Your task to perform on an android device: Open Google Maps and go to "Timeline" Image 0: 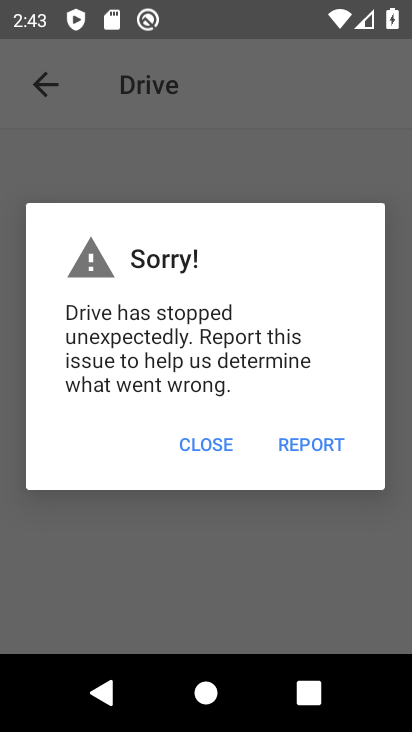
Step 0: press back button
Your task to perform on an android device: Open Google Maps and go to "Timeline" Image 1: 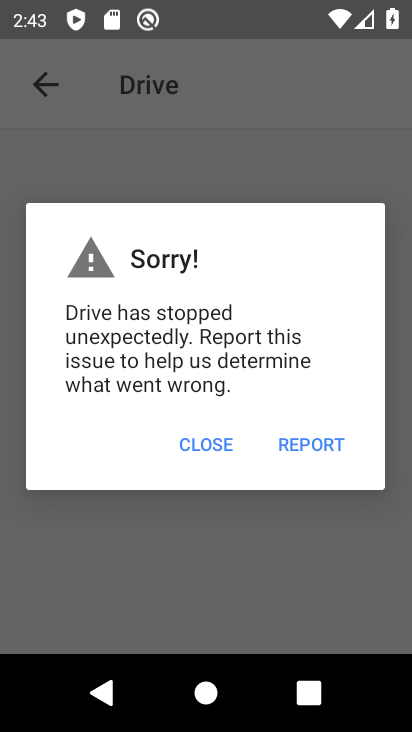
Step 1: press back button
Your task to perform on an android device: Open Google Maps and go to "Timeline" Image 2: 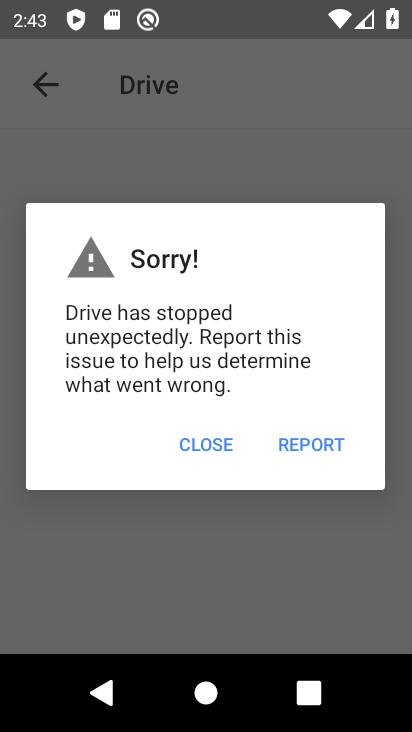
Step 2: press home button
Your task to perform on an android device: Open Google Maps and go to "Timeline" Image 3: 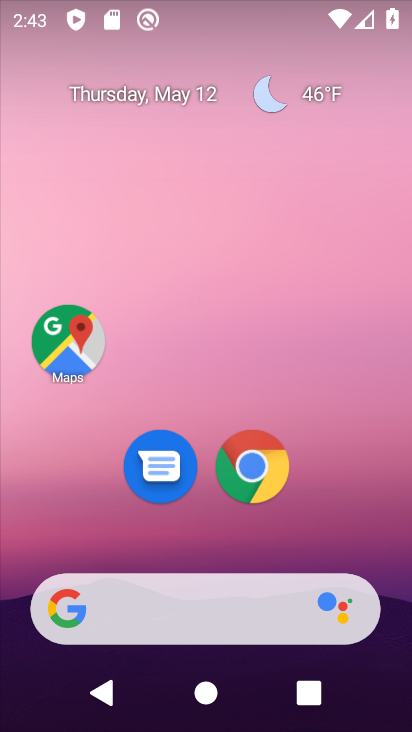
Step 3: drag from (358, 487) to (281, 6)
Your task to perform on an android device: Open Google Maps and go to "Timeline" Image 4: 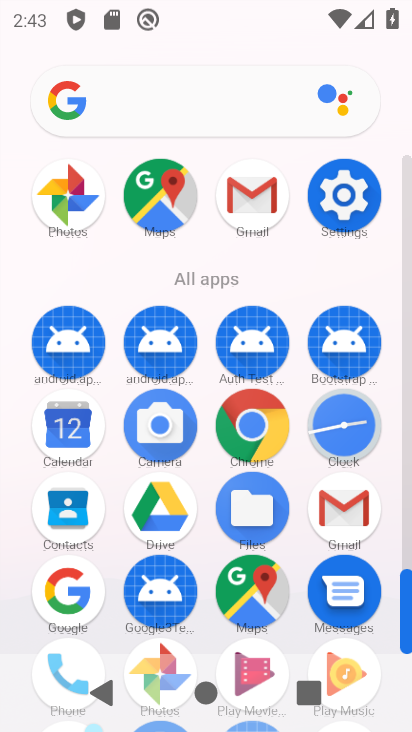
Step 4: click (248, 588)
Your task to perform on an android device: Open Google Maps and go to "Timeline" Image 5: 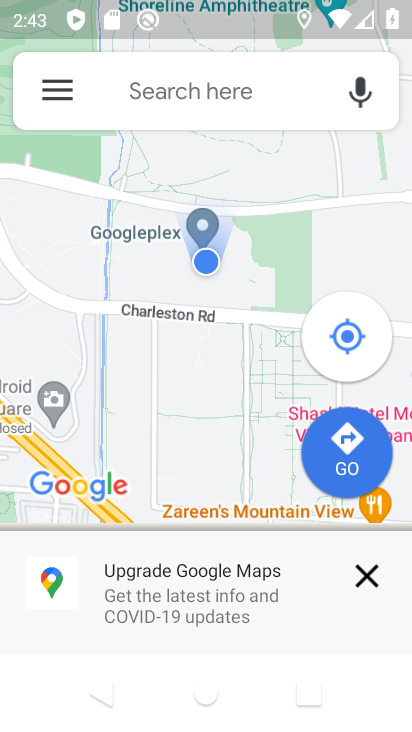
Step 5: click (61, 82)
Your task to perform on an android device: Open Google Maps and go to "Timeline" Image 6: 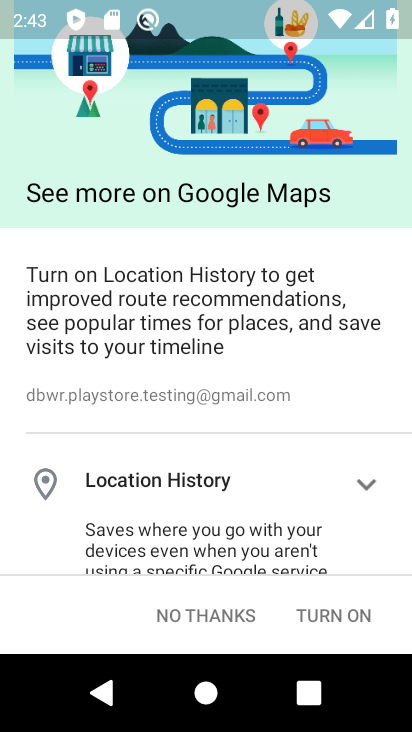
Step 6: click (315, 616)
Your task to perform on an android device: Open Google Maps and go to "Timeline" Image 7: 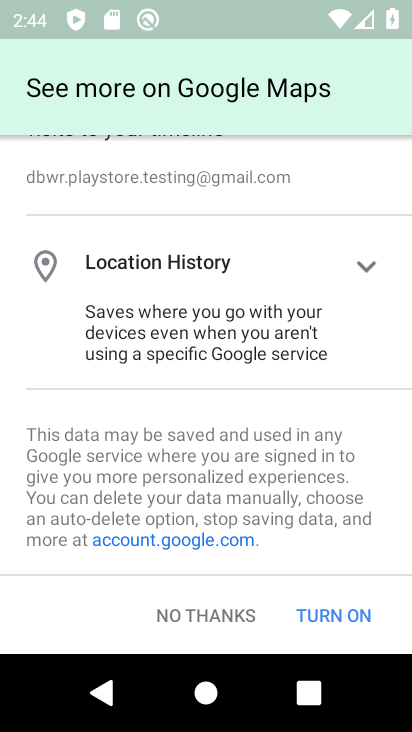
Step 7: click (316, 613)
Your task to perform on an android device: Open Google Maps and go to "Timeline" Image 8: 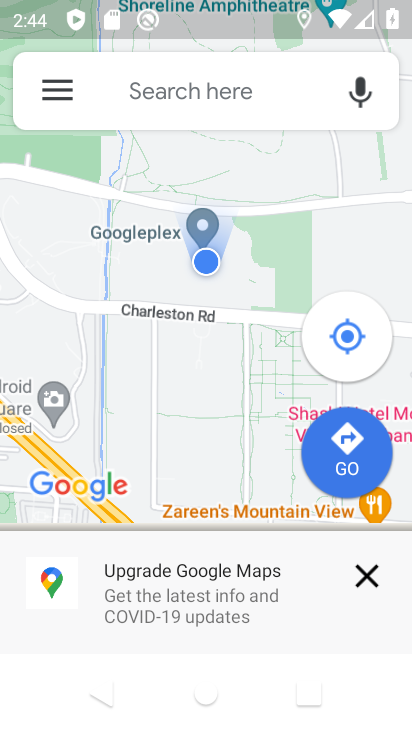
Step 8: click (50, 80)
Your task to perform on an android device: Open Google Maps and go to "Timeline" Image 9: 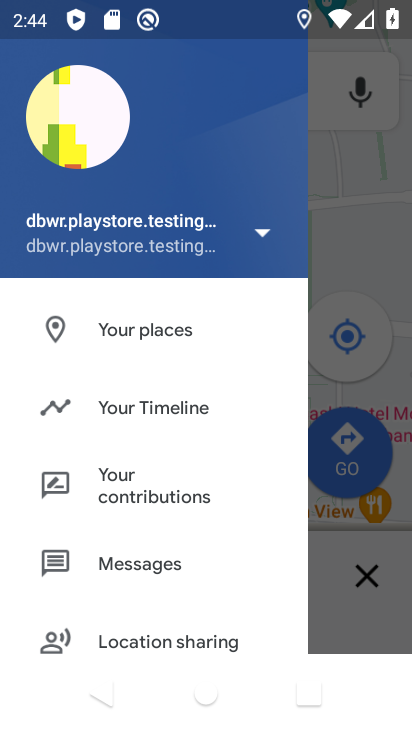
Step 9: click (139, 408)
Your task to perform on an android device: Open Google Maps and go to "Timeline" Image 10: 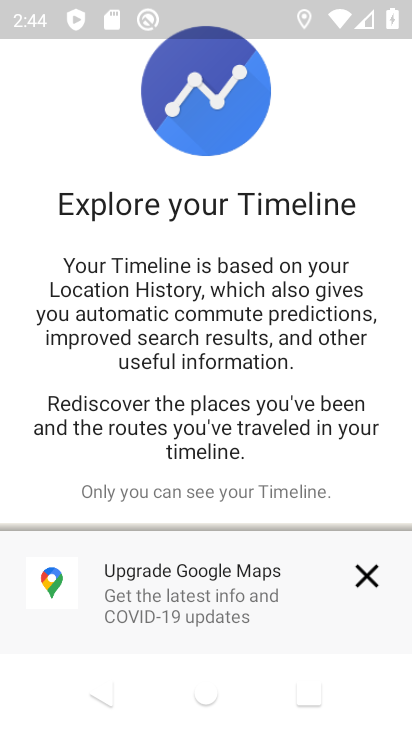
Step 10: click (360, 571)
Your task to perform on an android device: Open Google Maps and go to "Timeline" Image 11: 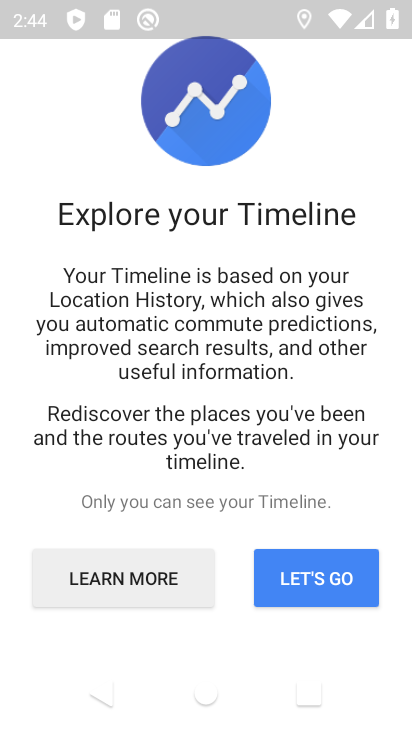
Step 11: click (326, 579)
Your task to perform on an android device: Open Google Maps and go to "Timeline" Image 12: 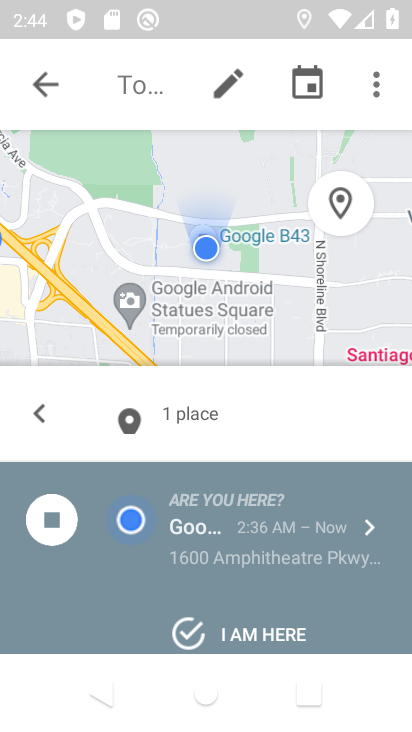
Step 12: task complete